Your task to perform on an android device: What's on my calendar tomorrow? Image 0: 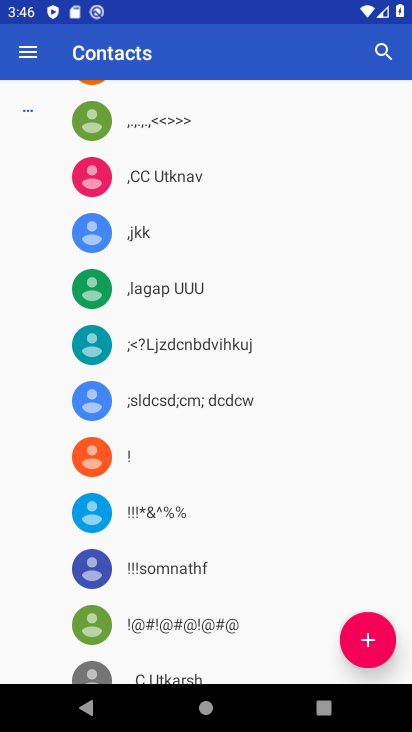
Step 0: press home button
Your task to perform on an android device: What's on my calendar tomorrow? Image 1: 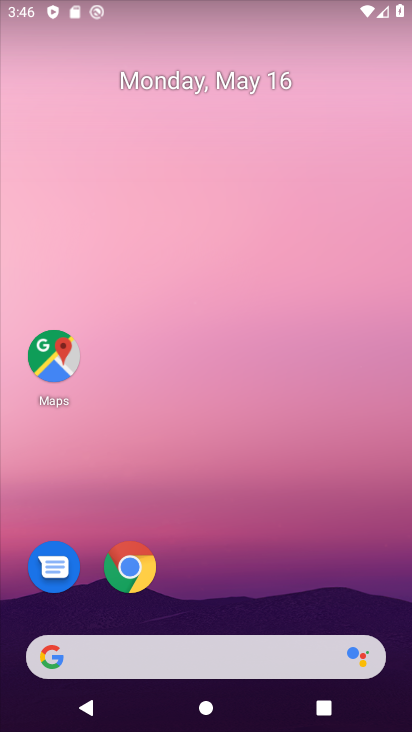
Step 1: drag from (201, 656) to (249, 100)
Your task to perform on an android device: What's on my calendar tomorrow? Image 2: 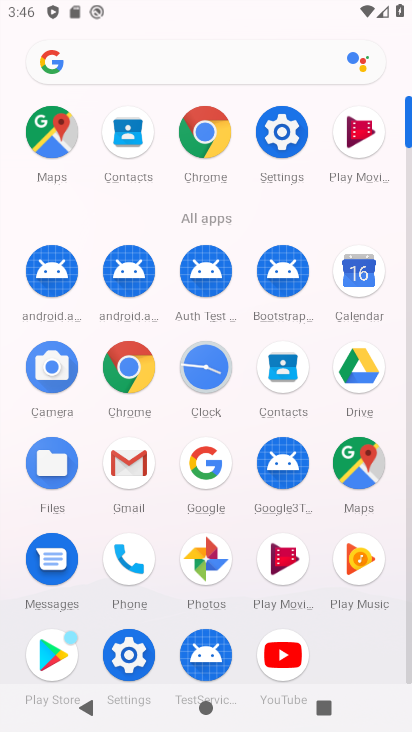
Step 2: click (347, 287)
Your task to perform on an android device: What's on my calendar tomorrow? Image 3: 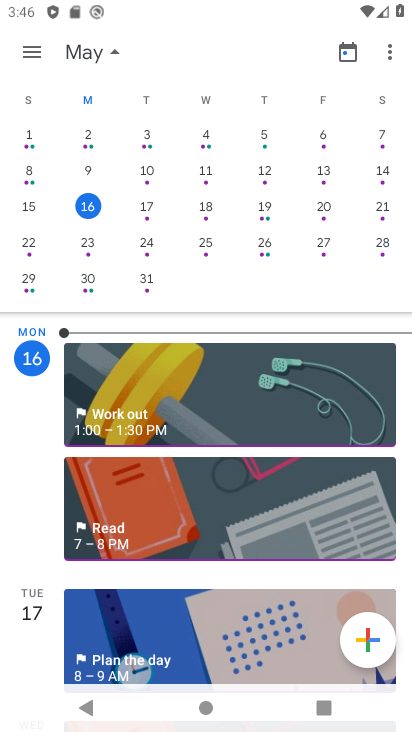
Step 3: click (140, 202)
Your task to perform on an android device: What's on my calendar tomorrow? Image 4: 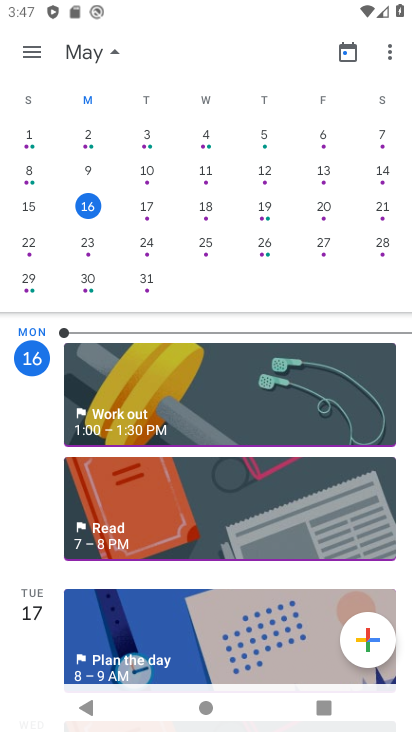
Step 4: task complete